Your task to perform on an android device: Open the stopwatch Image 0: 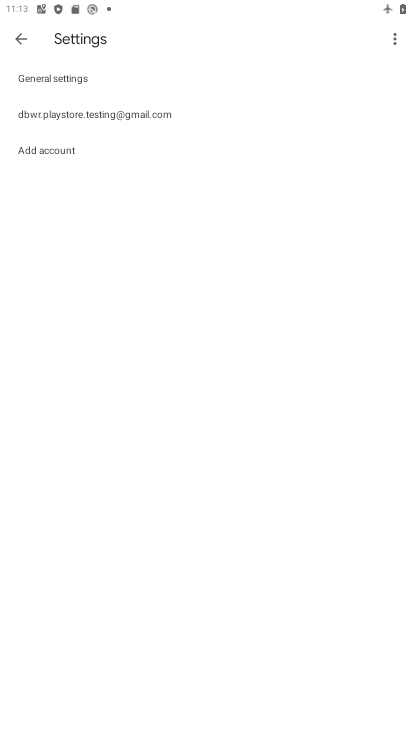
Step 0: press home button
Your task to perform on an android device: Open the stopwatch Image 1: 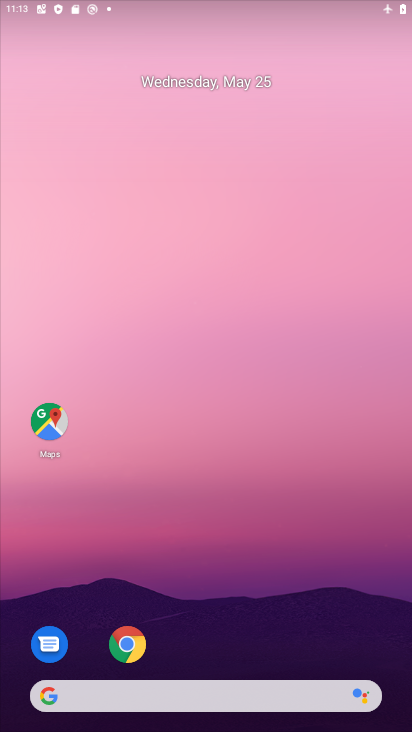
Step 1: drag from (230, 620) to (244, 108)
Your task to perform on an android device: Open the stopwatch Image 2: 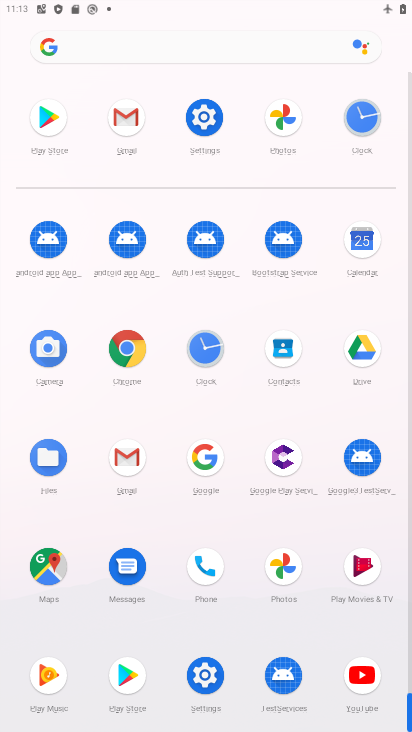
Step 2: drag from (202, 114) to (145, 128)
Your task to perform on an android device: Open the stopwatch Image 3: 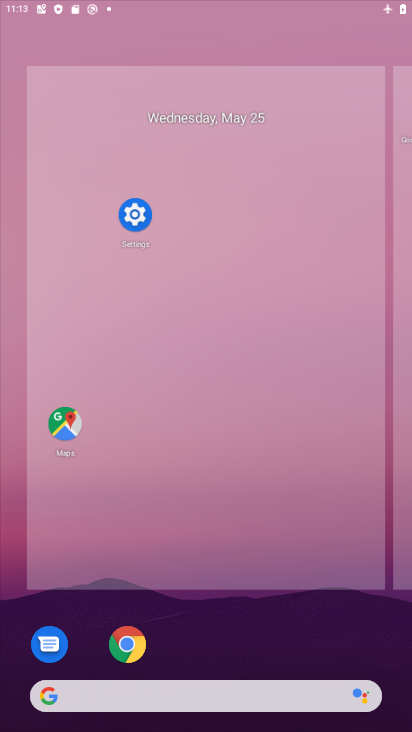
Step 3: drag from (233, 567) to (268, 135)
Your task to perform on an android device: Open the stopwatch Image 4: 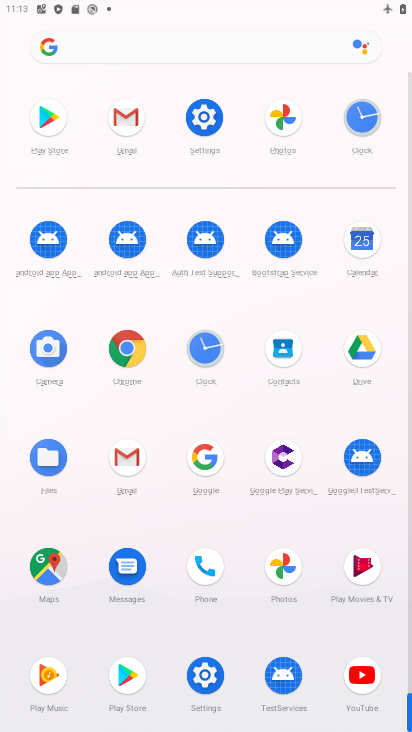
Step 4: click (203, 357)
Your task to perform on an android device: Open the stopwatch Image 5: 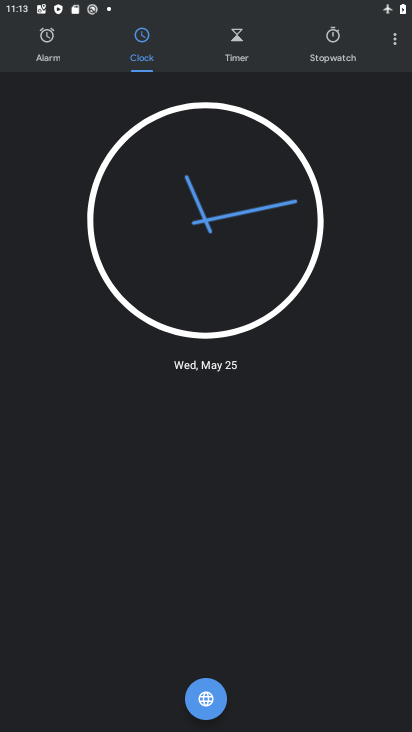
Step 5: click (339, 44)
Your task to perform on an android device: Open the stopwatch Image 6: 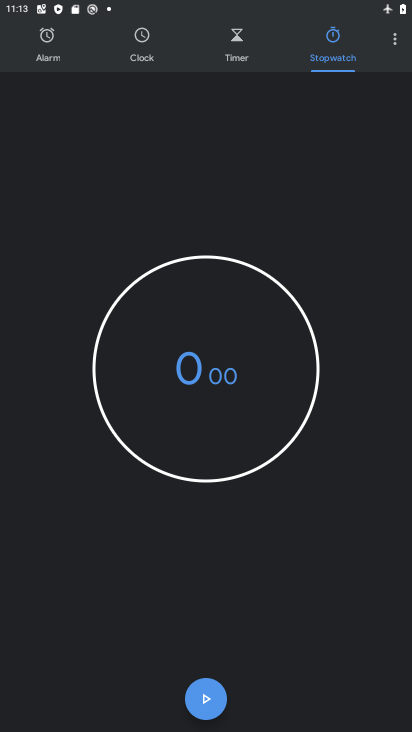
Step 6: click (211, 689)
Your task to perform on an android device: Open the stopwatch Image 7: 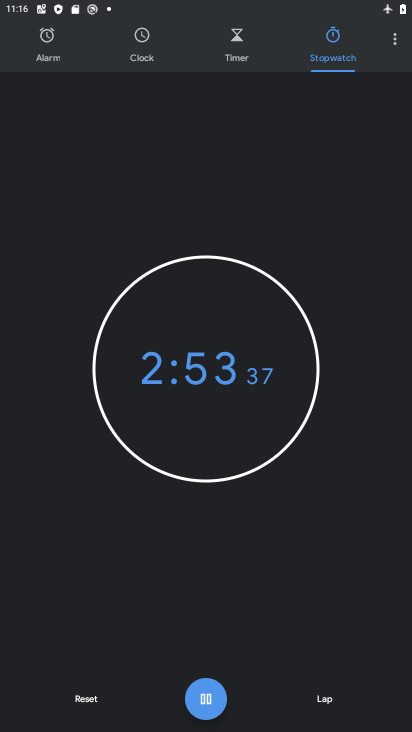
Step 7: task complete